Your task to perform on an android device: turn on the 12-hour format for clock Image 0: 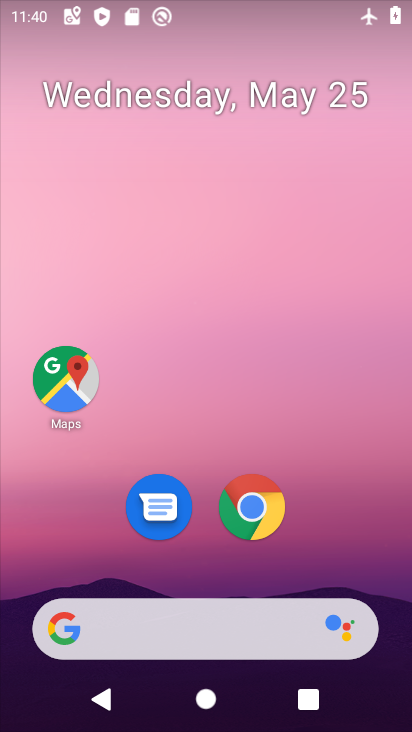
Step 0: drag from (323, 556) to (265, 151)
Your task to perform on an android device: turn on the 12-hour format for clock Image 1: 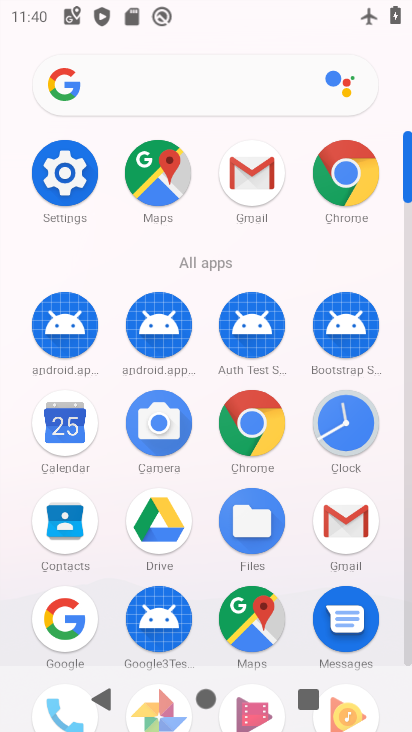
Step 1: click (346, 423)
Your task to perform on an android device: turn on the 12-hour format for clock Image 2: 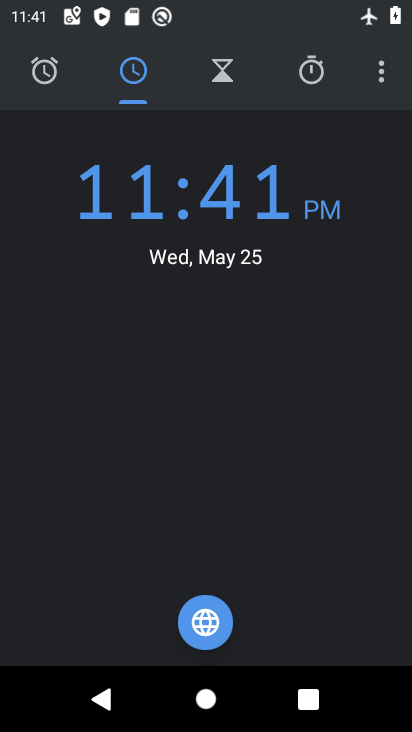
Step 2: click (383, 75)
Your task to perform on an android device: turn on the 12-hour format for clock Image 3: 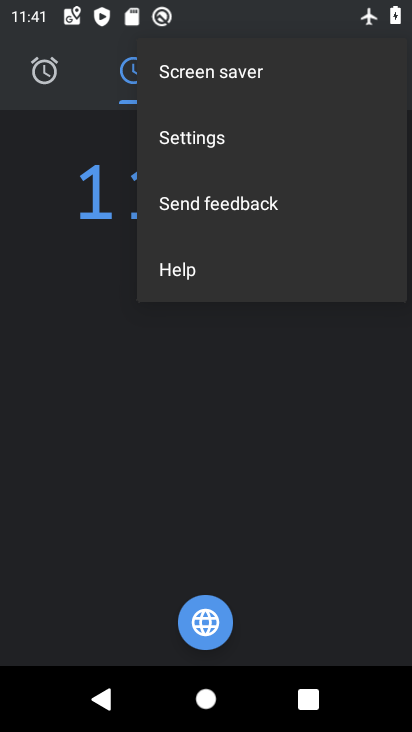
Step 3: click (209, 142)
Your task to perform on an android device: turn on the 12-hour format for clock Image 4: 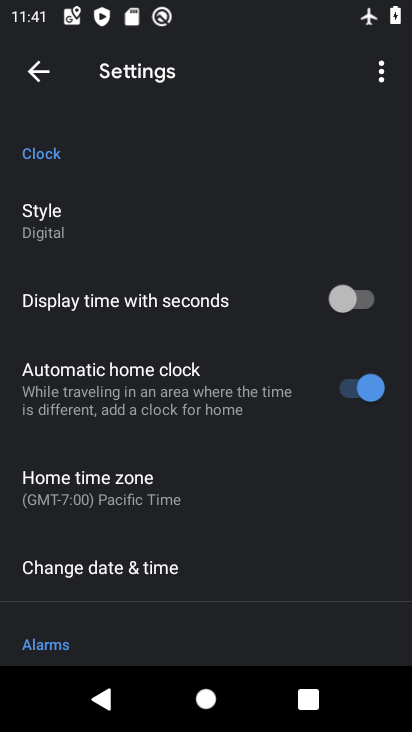
Step 4: click (135, 573)
Your task to perform on an android device: turn on the 12-hour format for clock Image 5: 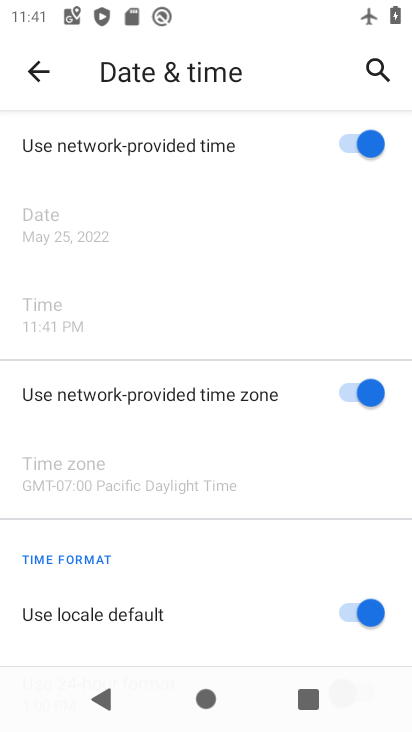
Step 5: task complete